Your task to perform on an android device: Open Google Maps Image 0: 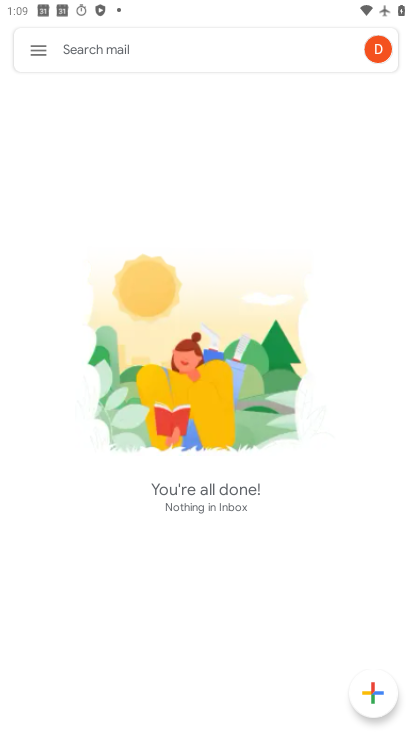
Step 0: press home button
Your task to perform on an android device: Open Google Maps Image 1: 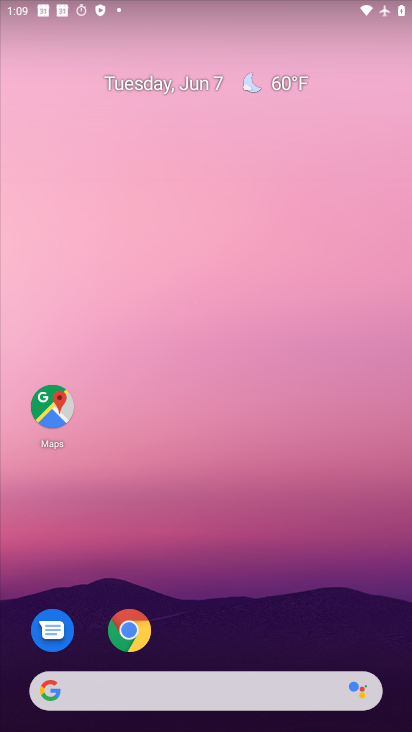
Step 1: drag from (365, 646) to (315, 87)
Your task to perform on an android device: Open Google Maps Image 2: 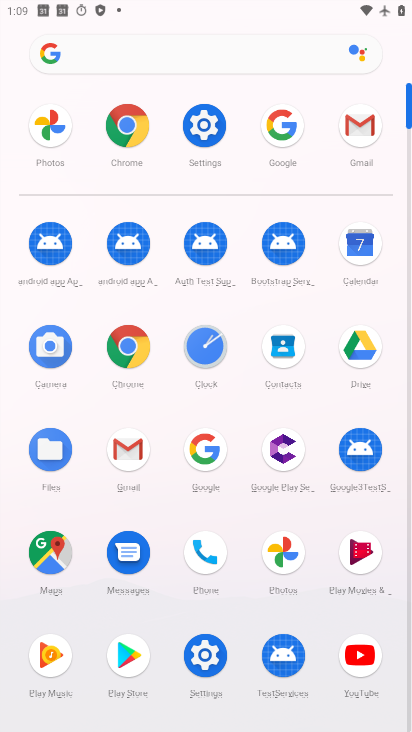
Step 2: click (39, 563)
Your task to perform on an android device: Open Google Maps Image 3: 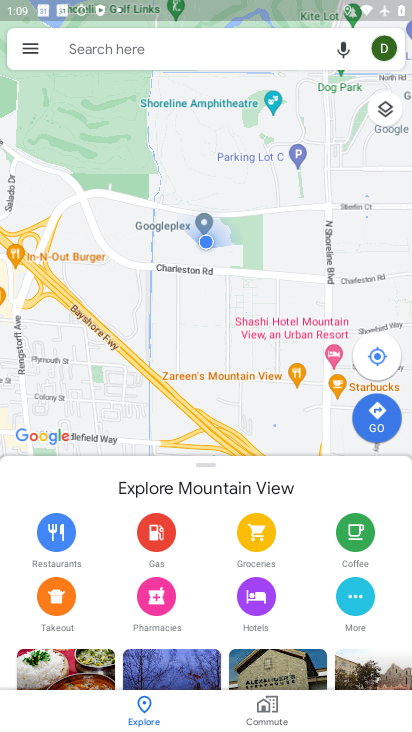
Step 3: task complete